Your task to perform on an android device: Check the settings for the Amazon Prime Video app Image 0: 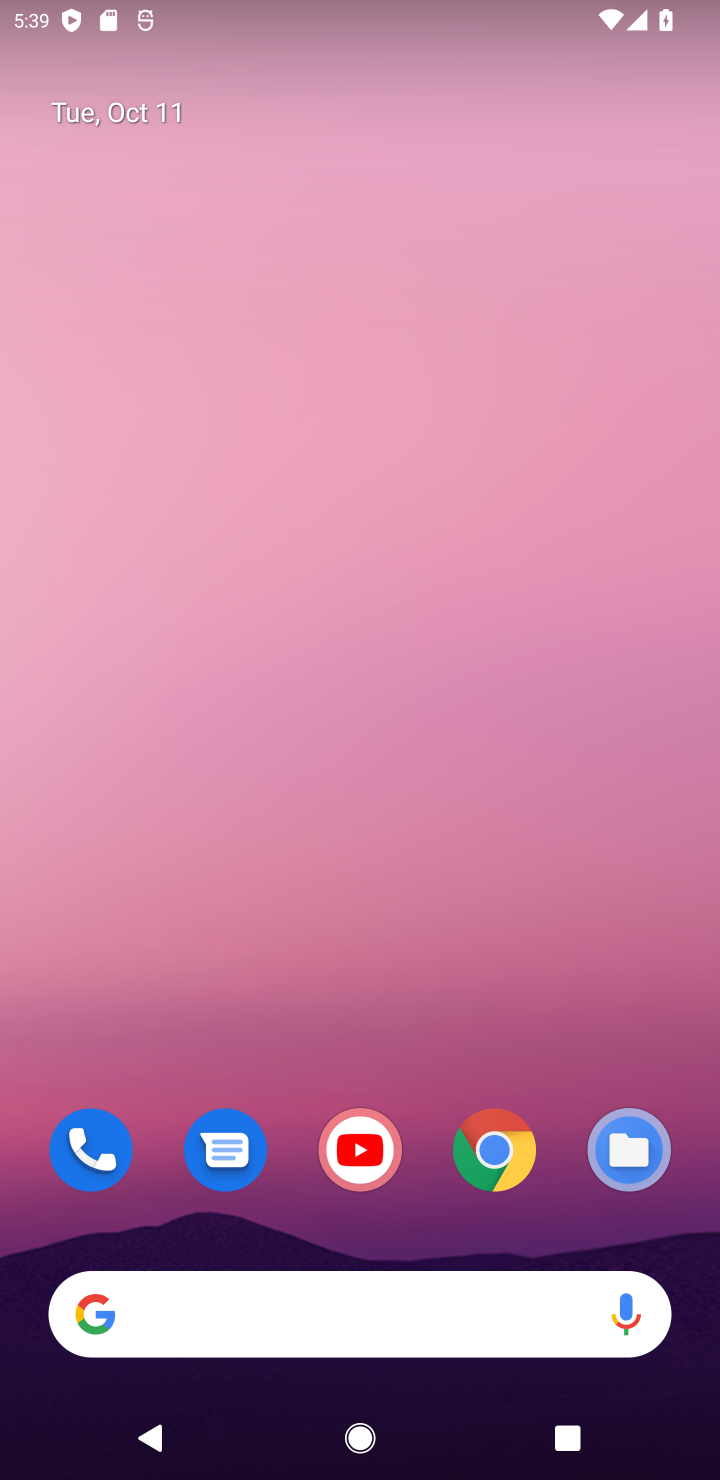
Step 0: drag from (514, 954) to (551, 2)
Your task to perform on an android device: Check the settings for the Amazon Prime Video app Image 1: 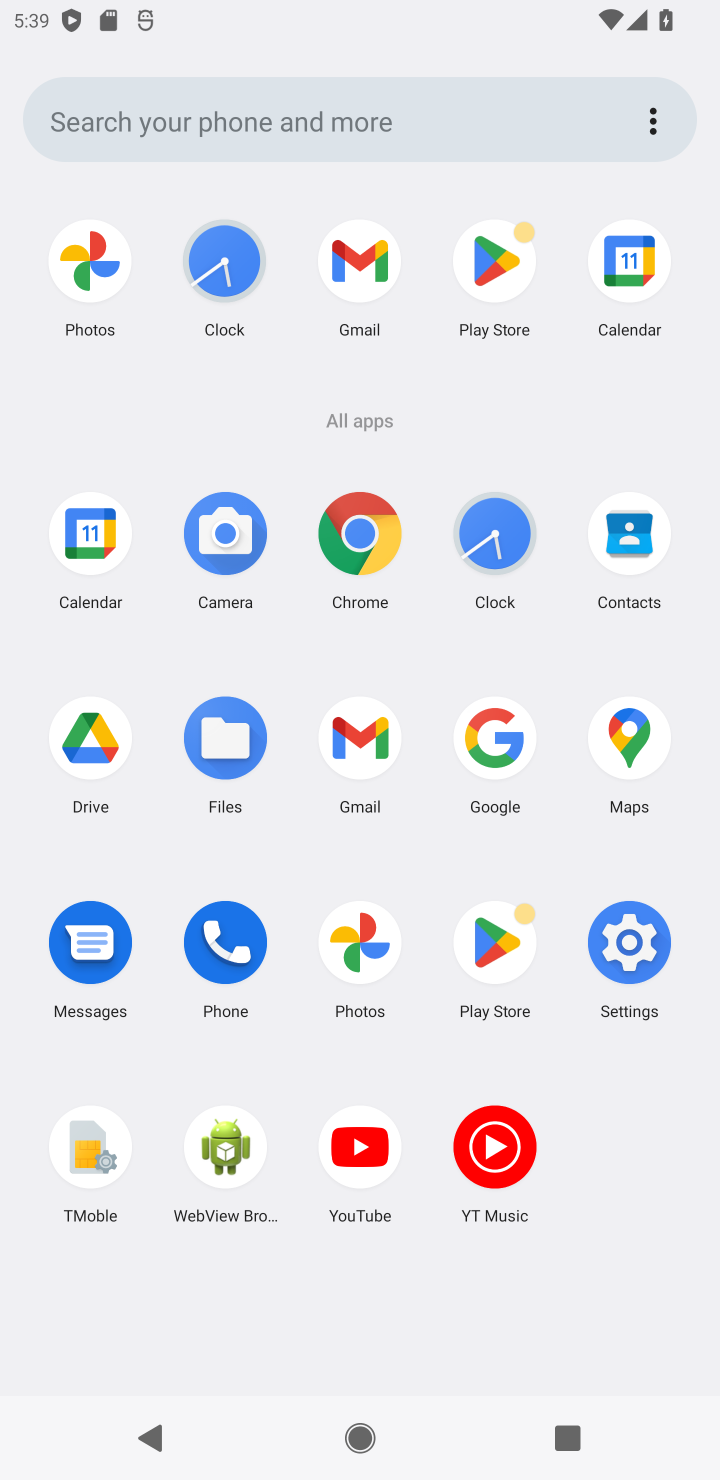
Step 1: task complete